Your task to perform on an android device: Open CNN.com Image 0: 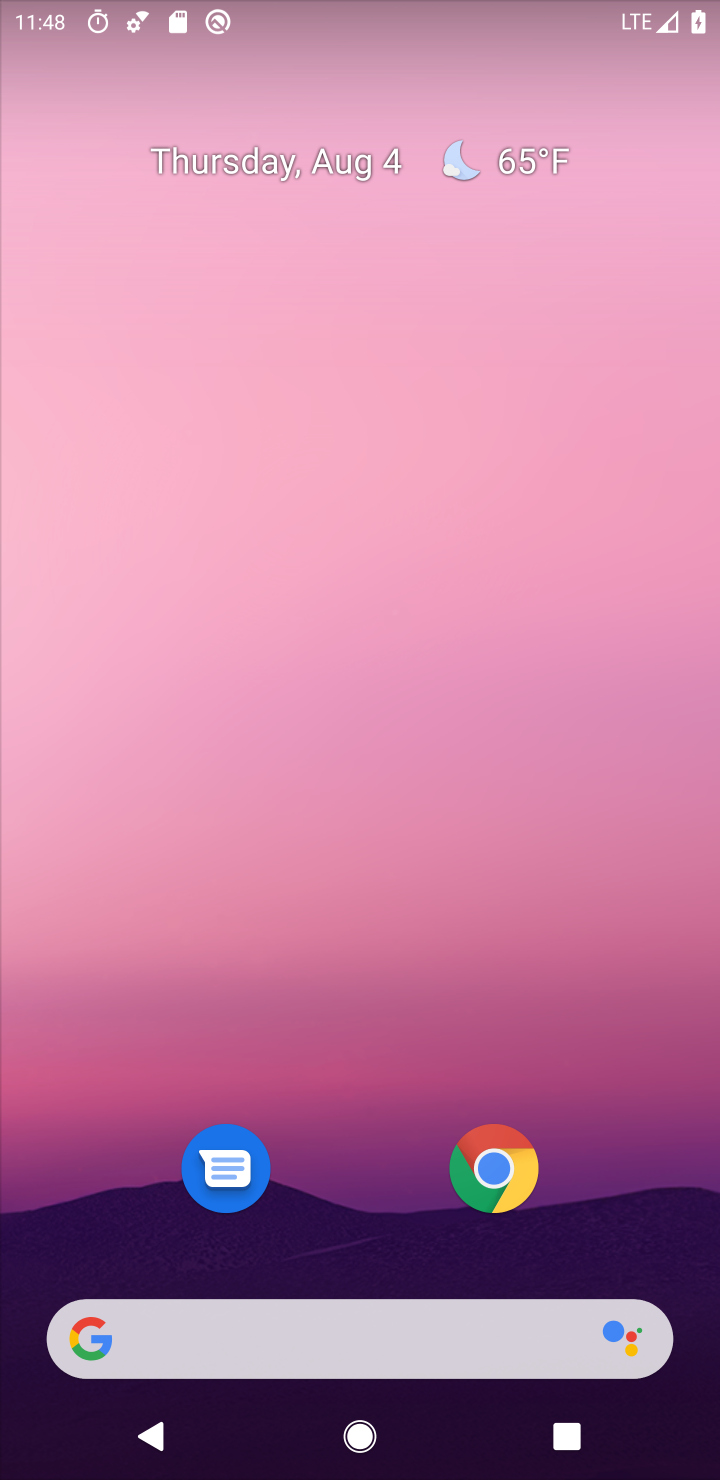
Step 0: click (487, 1163)
Your task to perform on an android device: Open CNN.com Image 1: 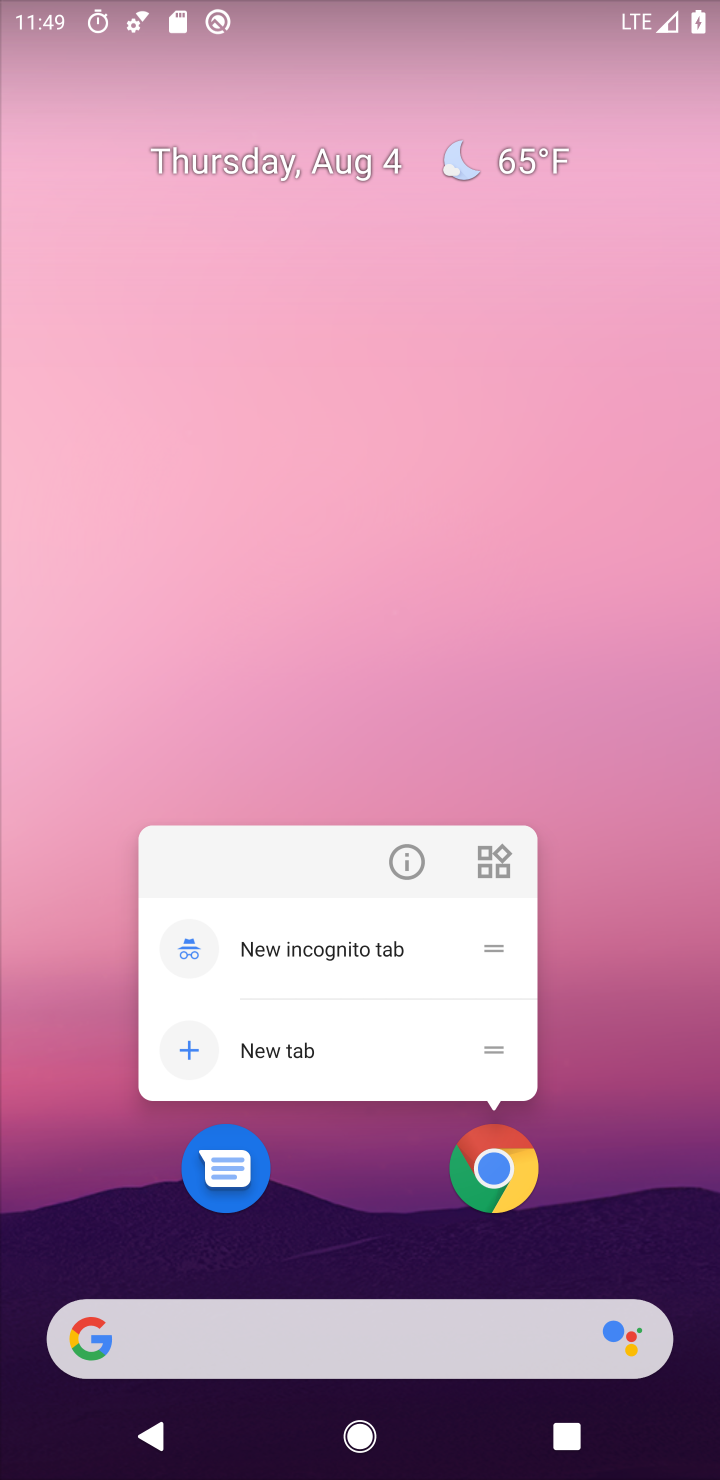
Step 1: click (499, 1187)
Your task to perform on an android device: Open CNN.com Image 2: 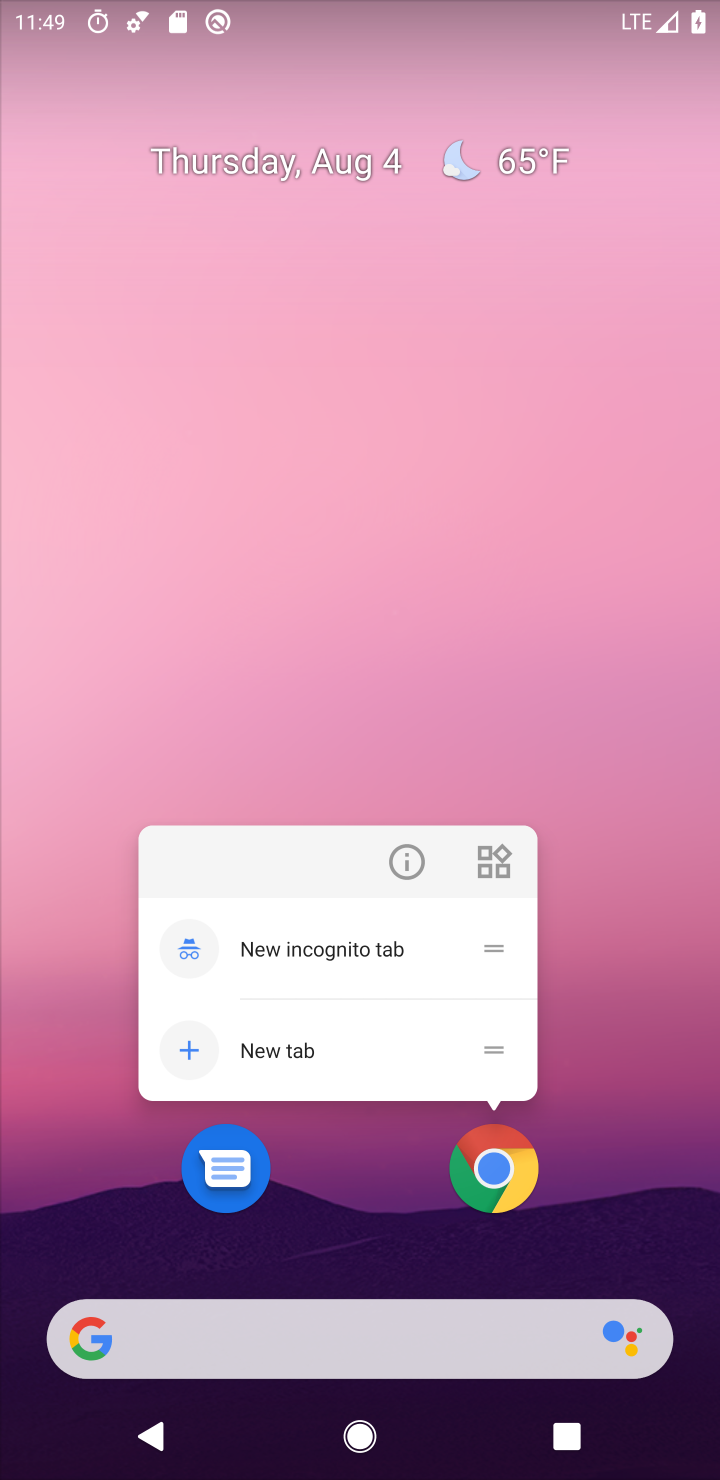
Step 2: click (503, 1195)
Your task to perform on an android device: Open CNN.com Image 3: 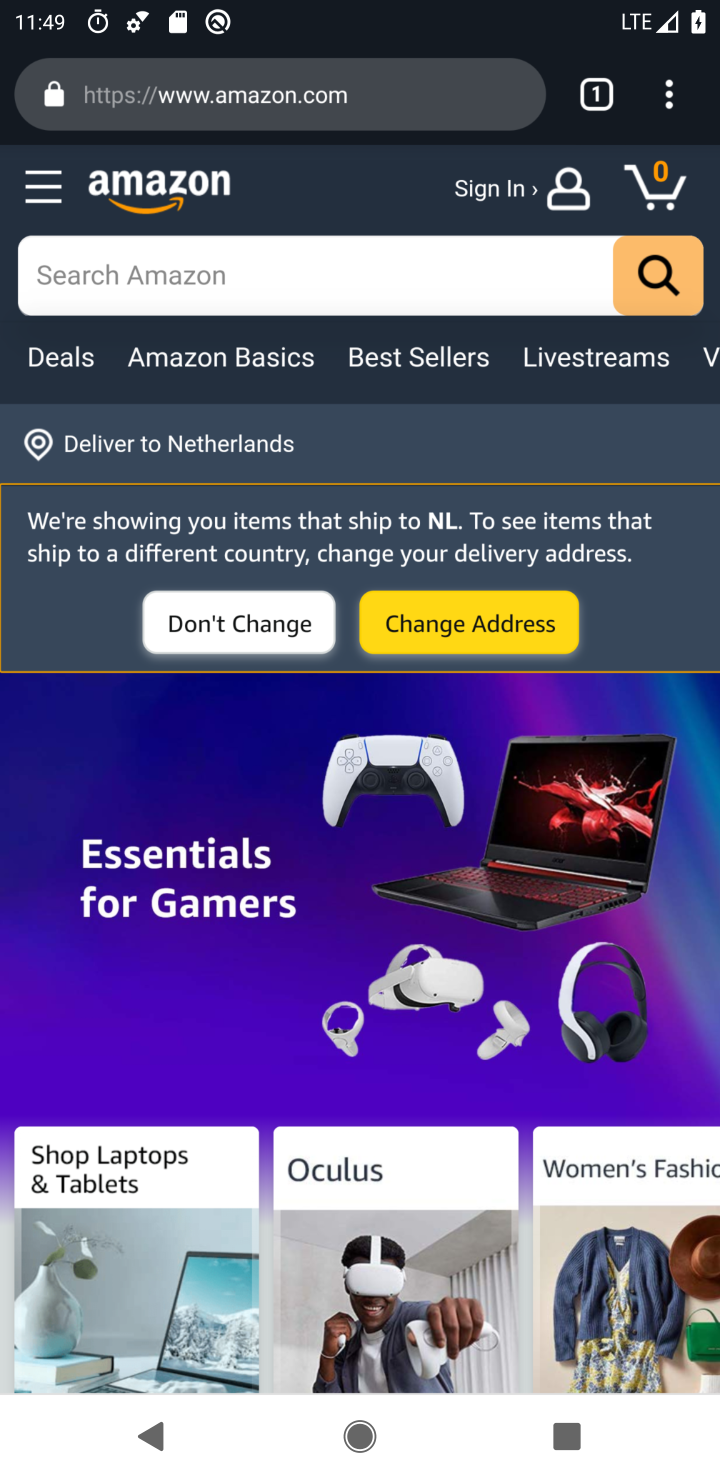
Step 3: click (501, 1185)
Your task to perform on an android device: Open CNN.com Image 4: 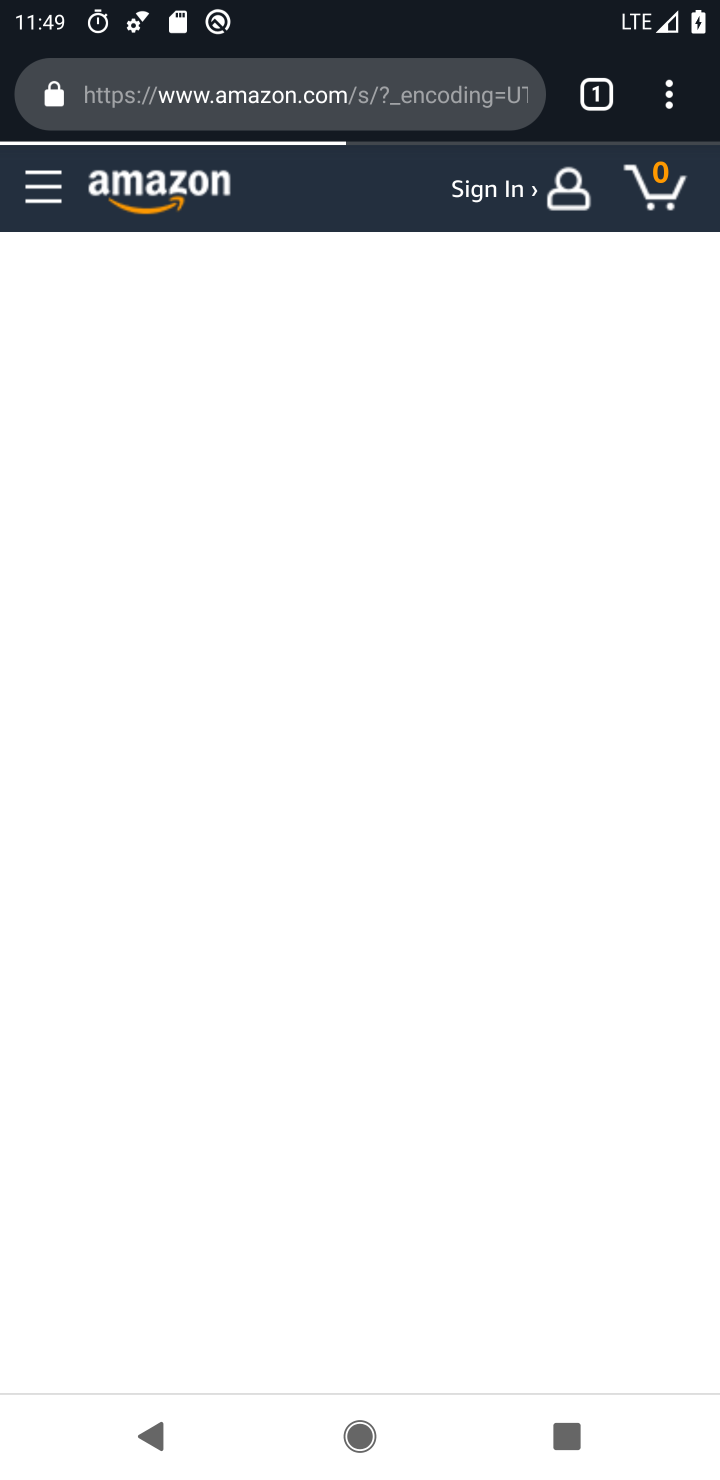
Step 4: click (317, 142)
Your task to perform on an android device: Open CNN.com Image 5: 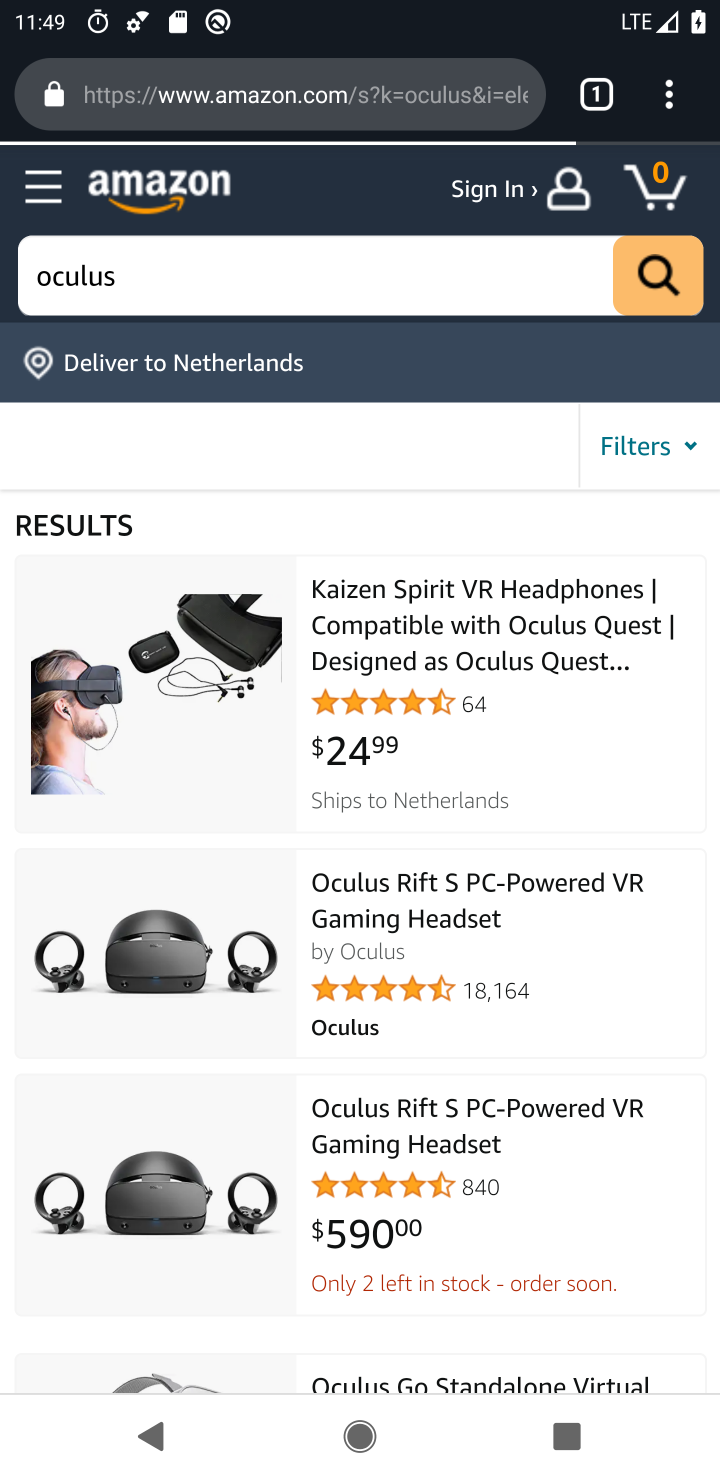
Step 5: click (317, 104)
Your task to perform on an android device: Open CNN.com Image 6: 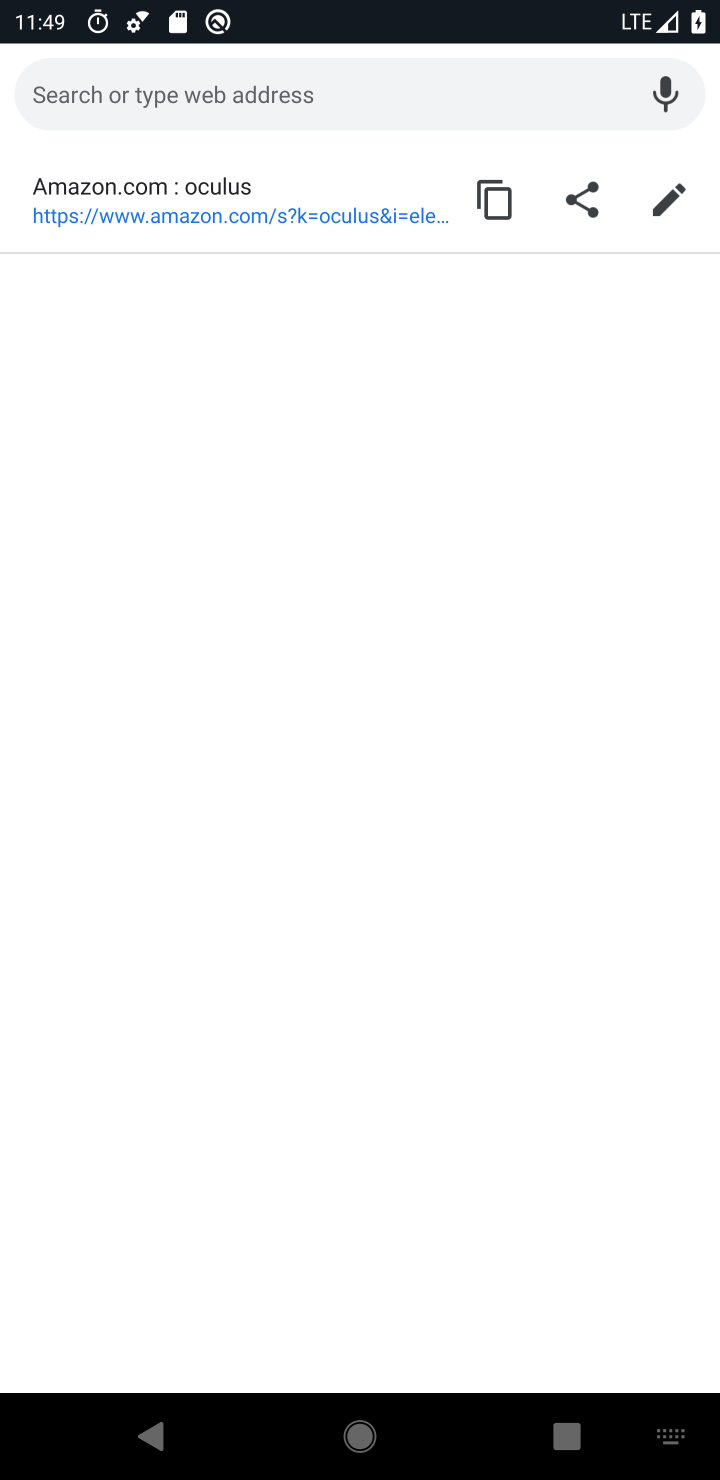
Step 6: type "CNN.com"
Your task to perform on an android device: Open CNN.com Image 7: 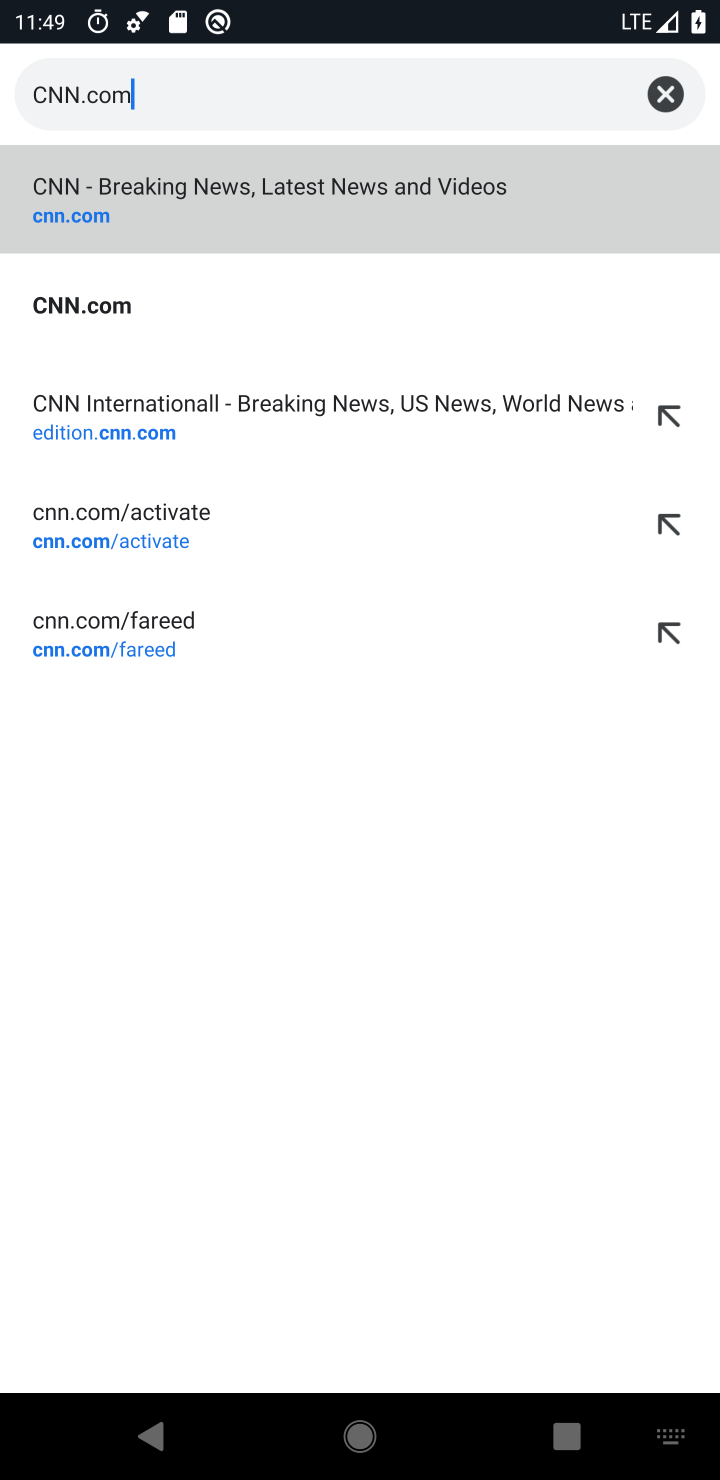
Step 7: click (355, 106)
Your task to perform on an android device: Open CNN.com Image 8: 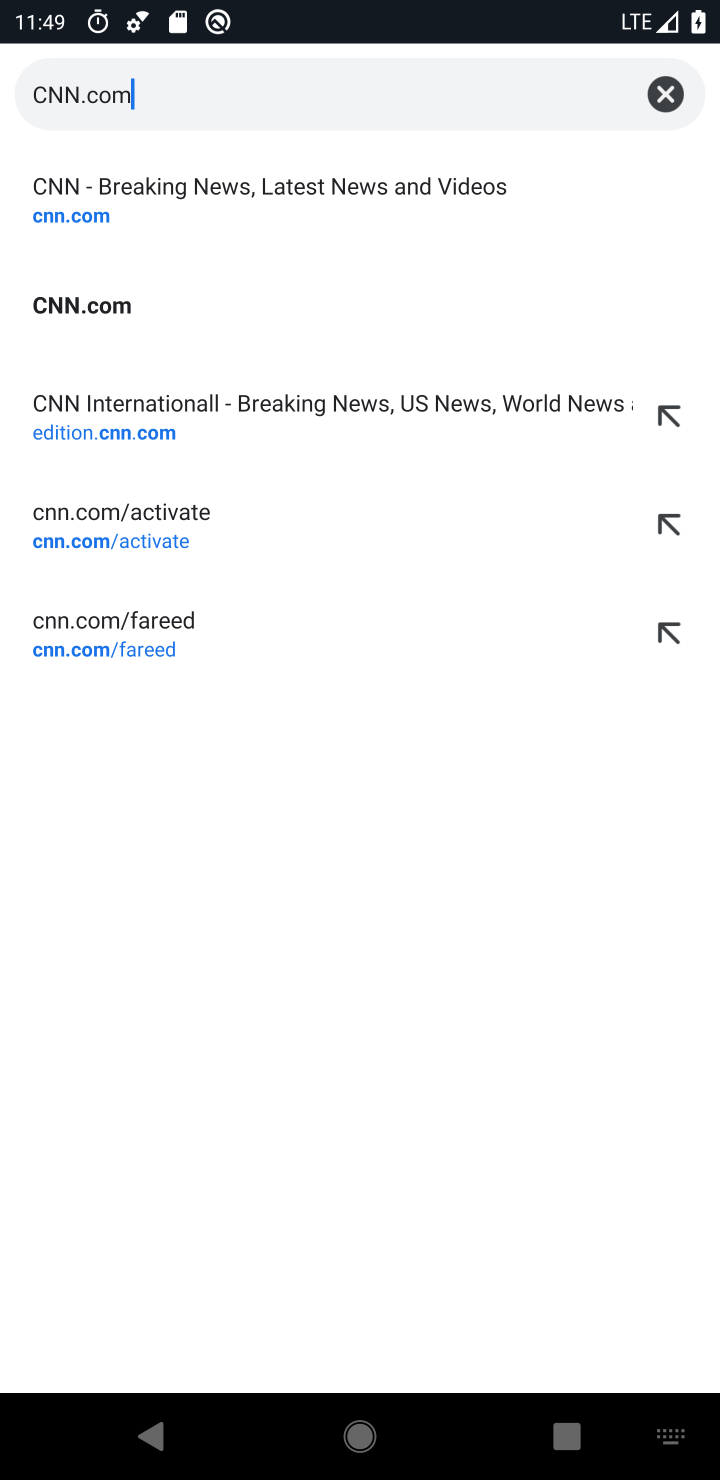
Step 8: click (135, 223)
Your task to perform on an android device: Open CNN.com Image 9: 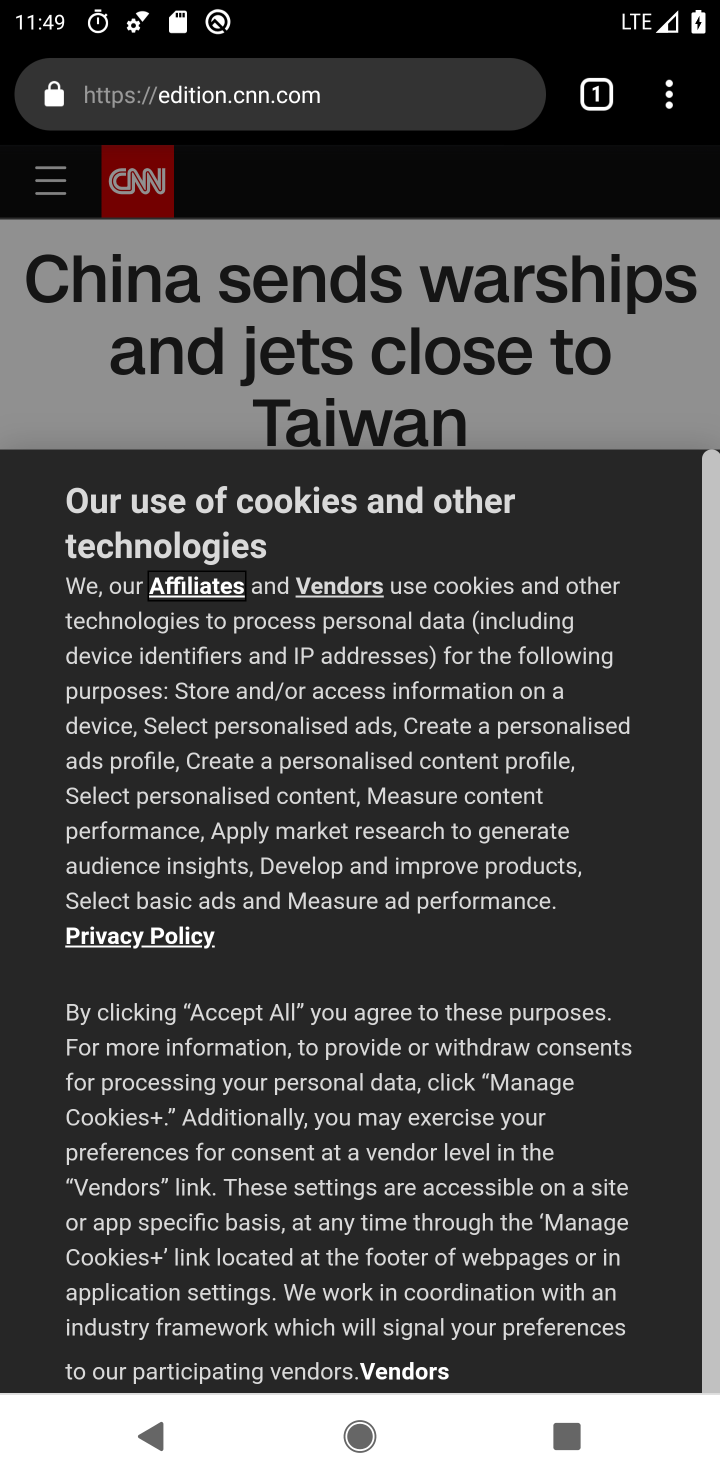
Step 9: task complete